Your task to perform on an android device: Open calendar and show me the third week of next month Image 0: 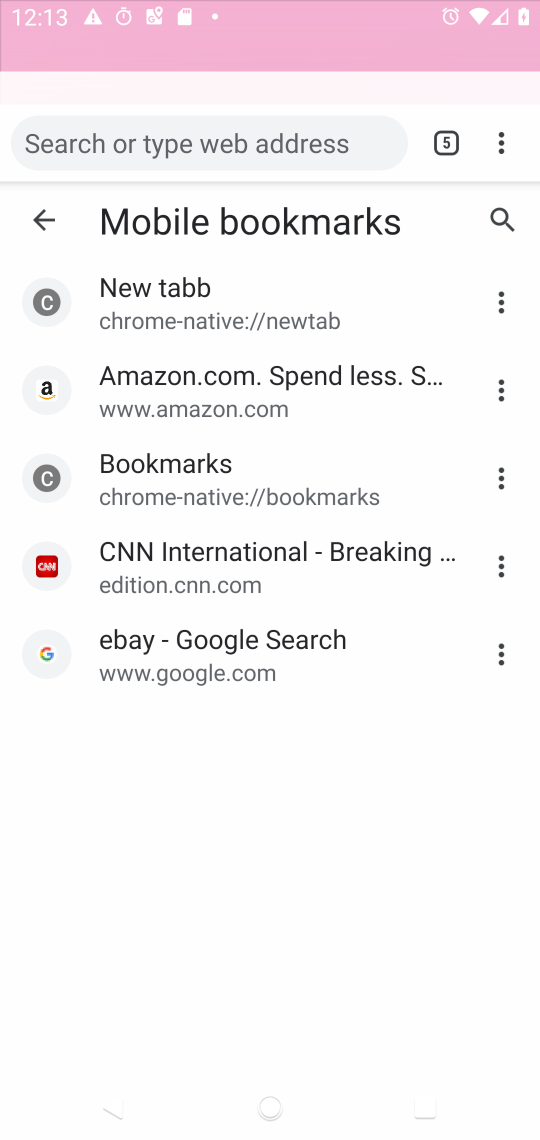
Step 0: press home button
Your task to perform on an android device: Open calendar and show me the third week of next month Image 1: 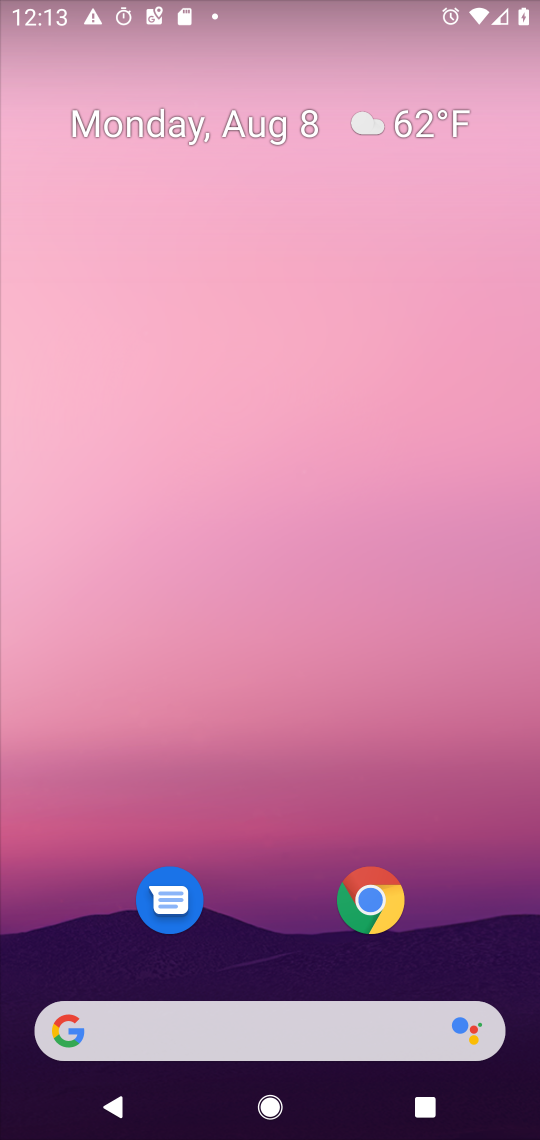
Step 1: drag from (292, 962) to (289, 130)
Your task to perform on an android device: Open calendar and show me the third week of next month Image 2: 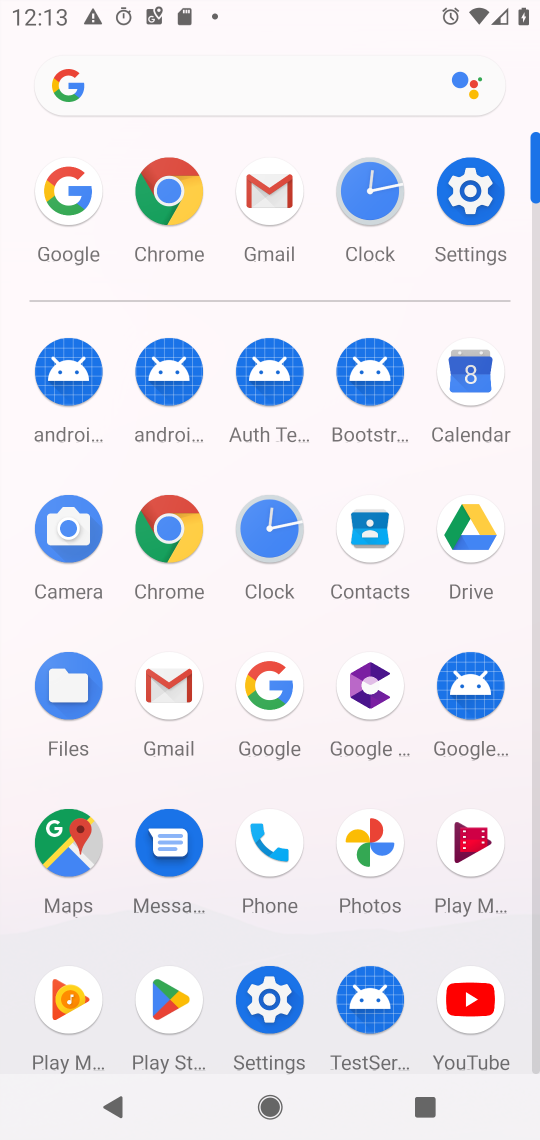
Step 2: click (473, 366)
Your task to perform on an android device: Open calendar and show me the third week of next month Image 3: 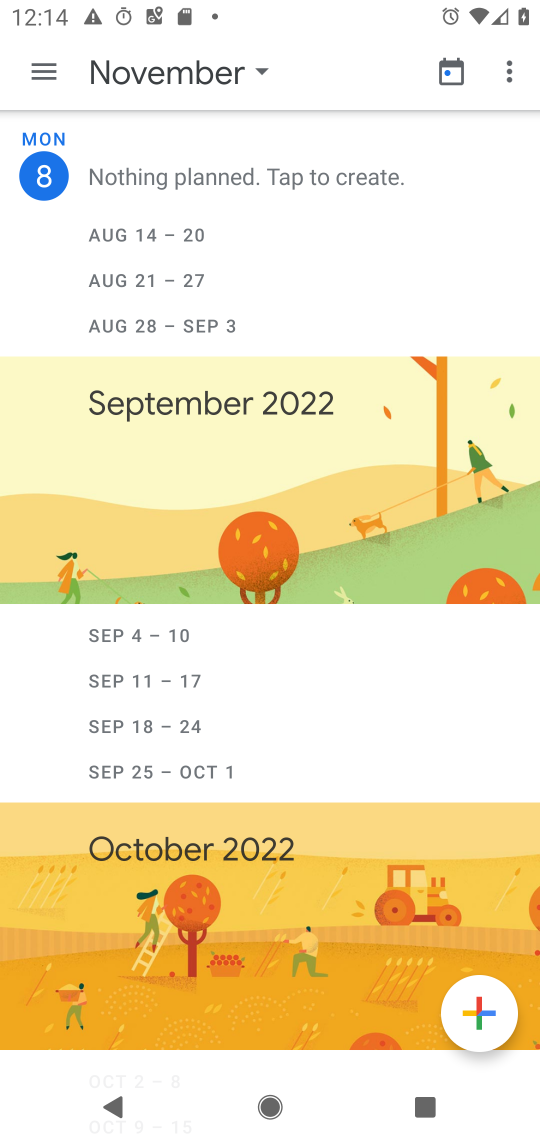
Step 3: click (41, 64)
Your task to perform on an android device: Open calendar and show me the third week of next month Image 4: 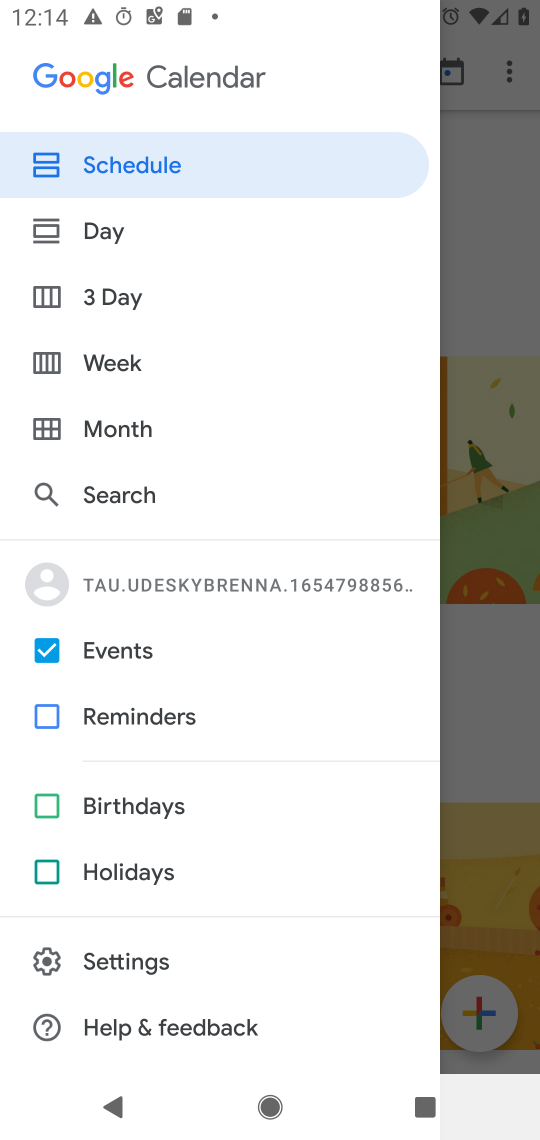
Step 4: click (103, 355)
Your task to perform on an android device: Open calendar and show me the third week of next month Image 5: 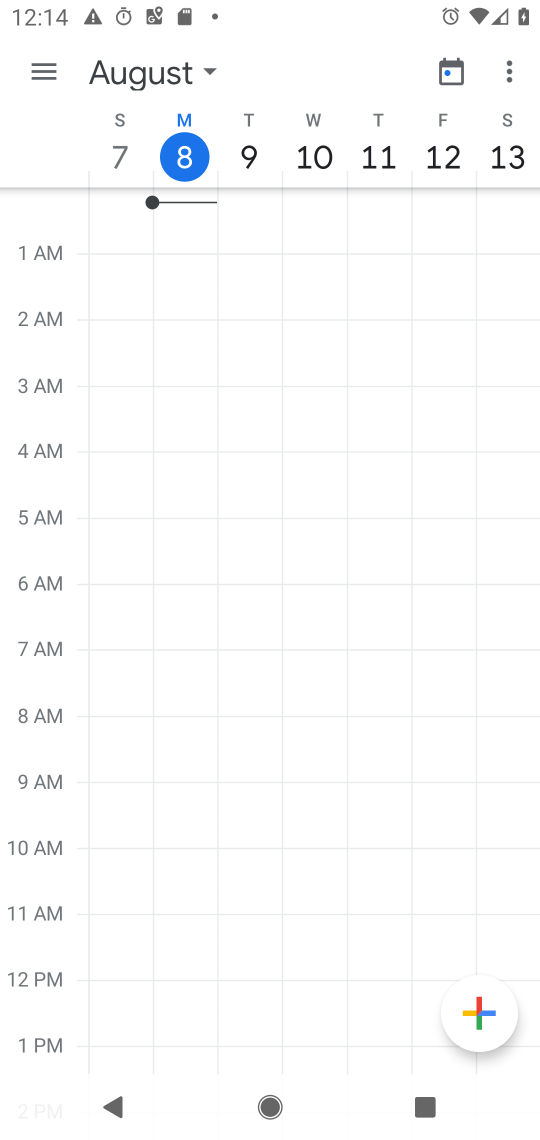
Step 5: click (210, 74)
Your task to perform on an android device: Open calendar and show me the third week of next month Image 6: 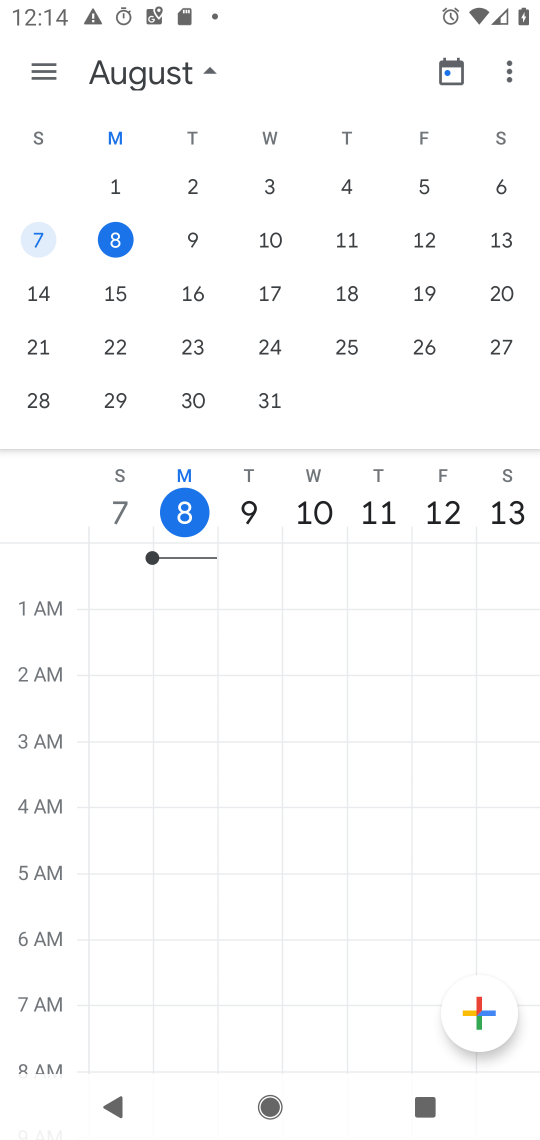
Step 6: drag from (471, 286) to (61, 296)
Your task to perform on an android device: Open calendar and show me the third week of next month Image 7: 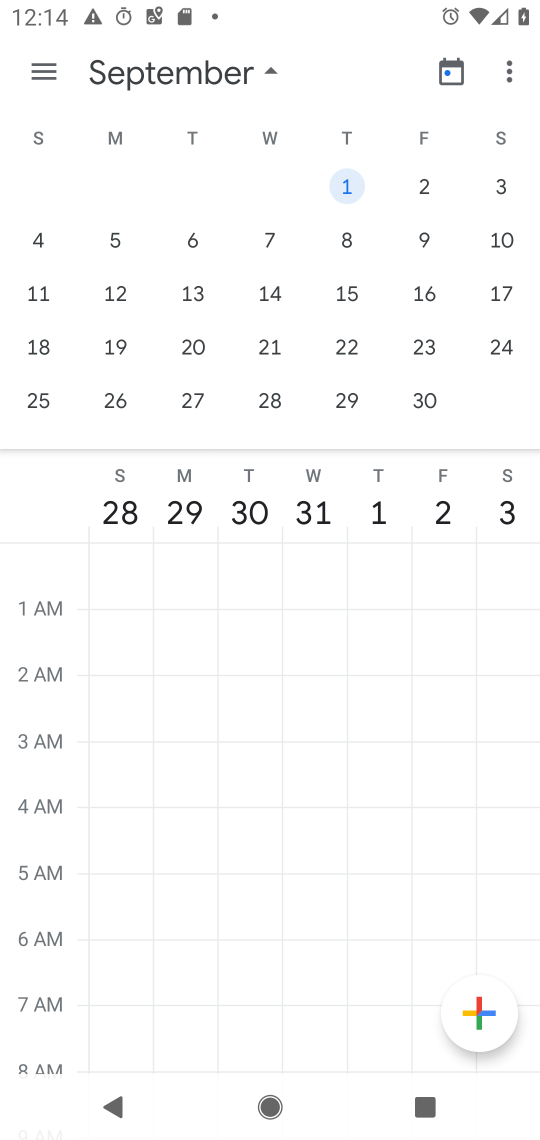
Step 7: click (46, 337)
Your task to perform on an android device: Open calendar and show me the third week of next month Image 8: 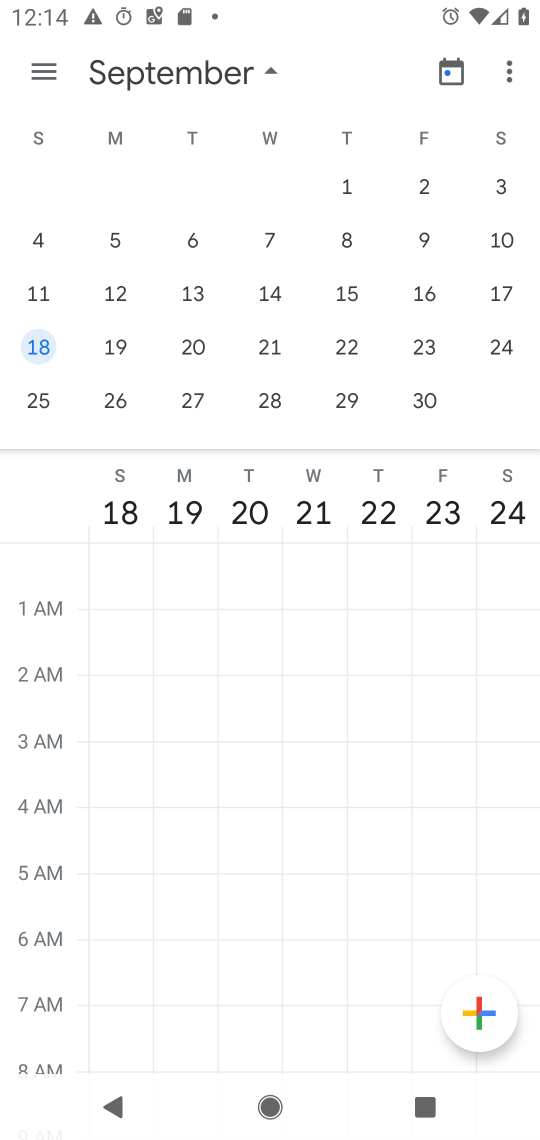
Step 8: click (270, 76)
Your task to perform on an android device: Open calendar and show me the third week of next month Image 9: 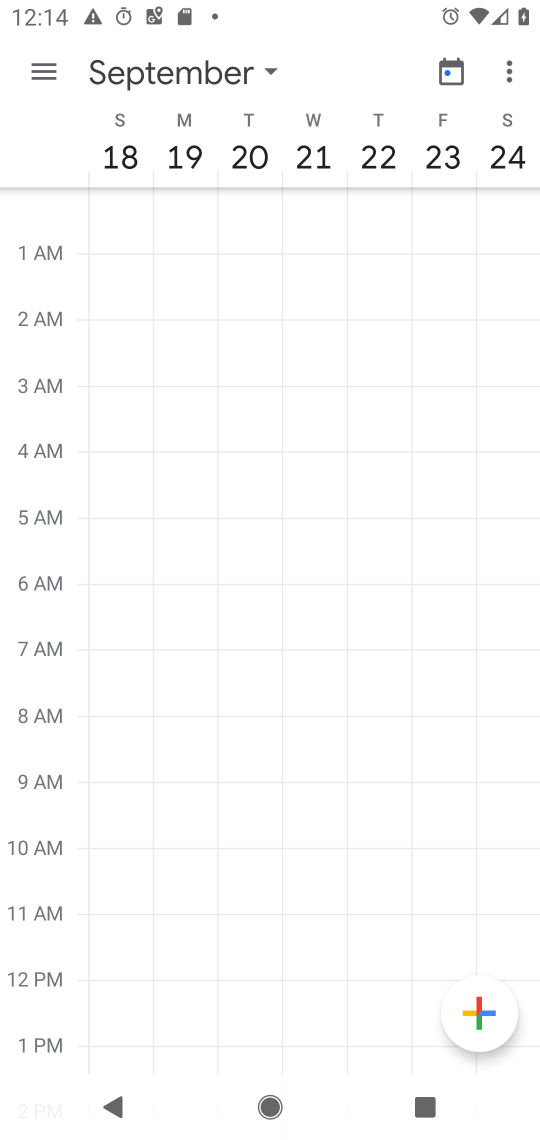
Step 9: click (120, 156)
Your task to perform on an android device: Open calendar and show me the third week of next month Image 10: 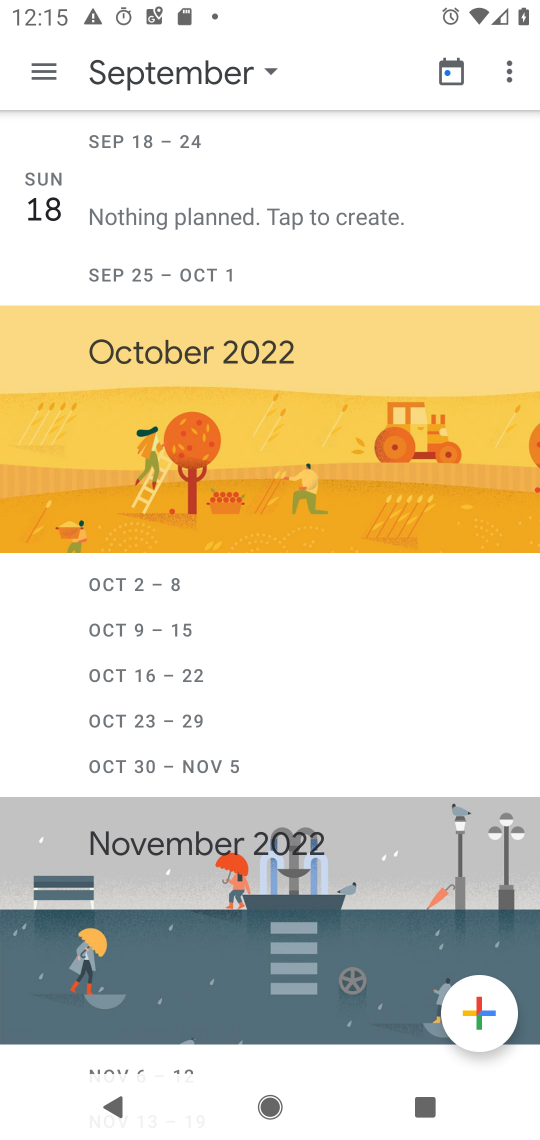
Step 10: task complete